Your task to perform on an android device: Go to Yahoo.com Image 0: 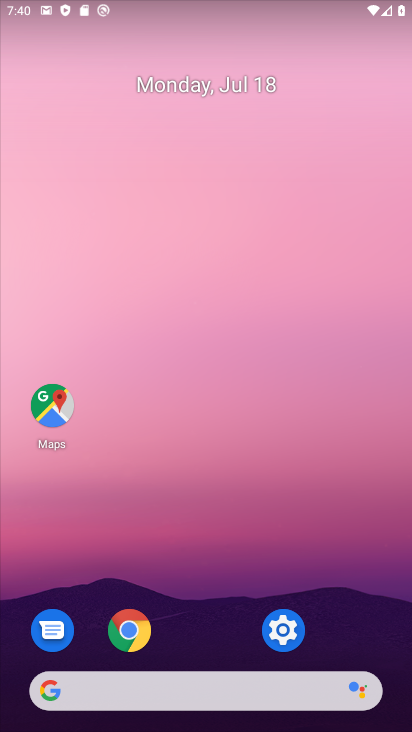
Step 0: click (137, 618)
Your task to perform on an android device: Go to Yahoo.com Image 1: 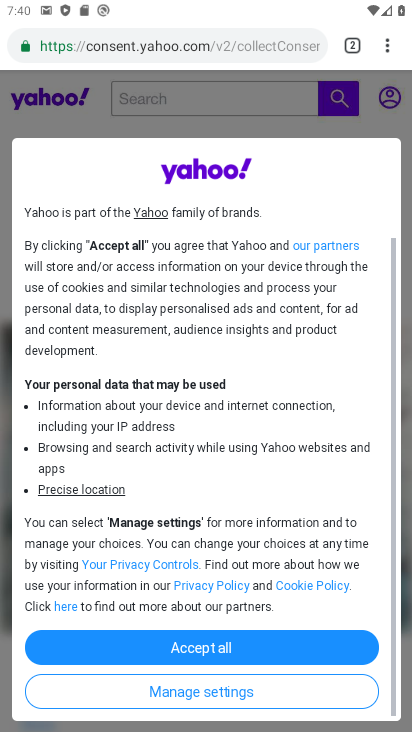
Step 1: click (196, 644)
Your task to perform on an android device: Go to Yahoo.com Image 2: 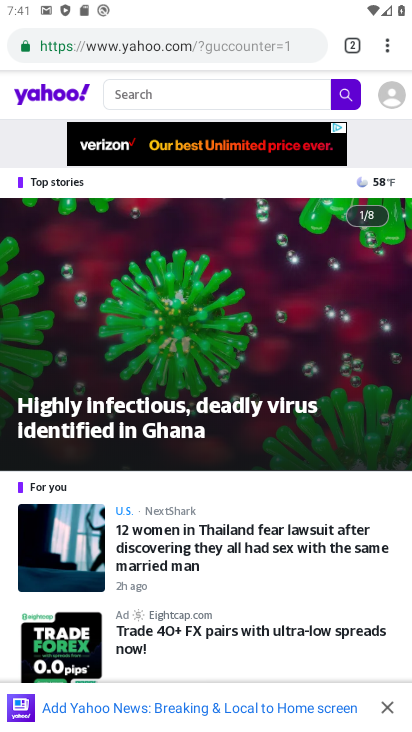
Step 2: task complete